Your task to perform on an android device: turn pop-ups on in chrome Image 0: 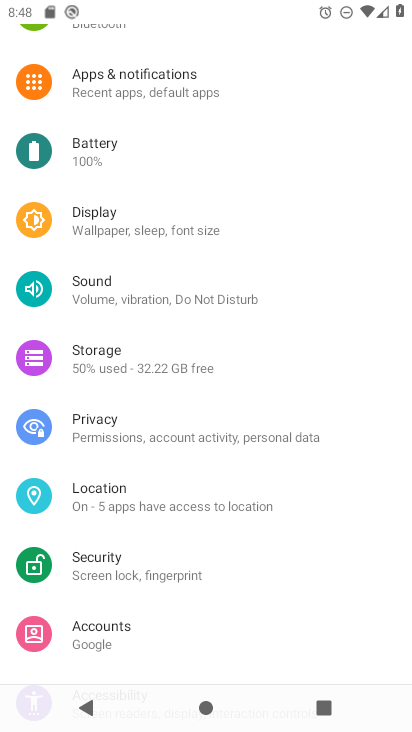
Step 0: press home button
Your task to perform on an android device: turn pop-ups on in chrome Image 1: 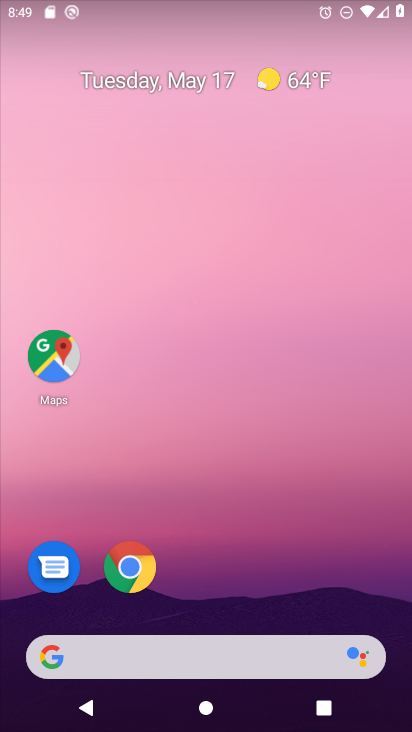
Step 1: click (129, 551)
Your task to perform on an android device: turn pop-ups on in chrome Image 2: 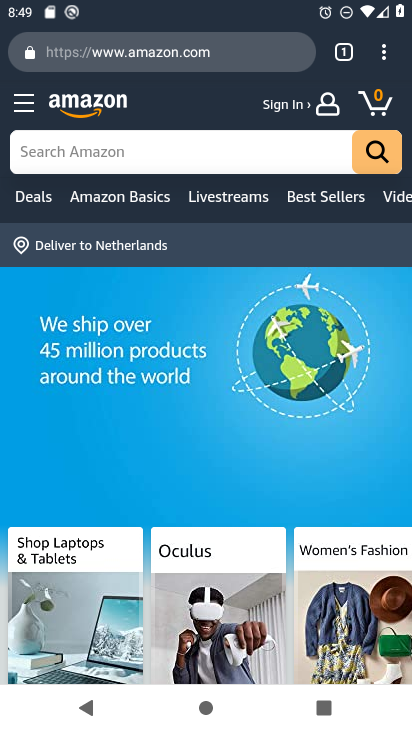
Step 2: press back button
Your task to perform on an android device: turn pop-ups on in chrome Image 3: 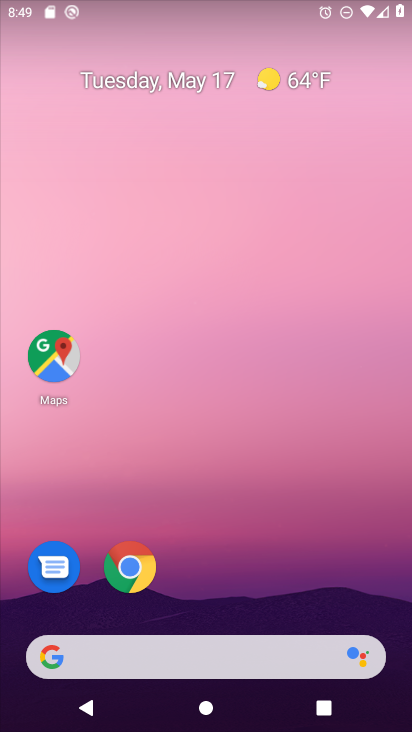
Step 3: click (140, 555)
Your task to perform on an android device: turn pop-ups on in chrome Image 4: 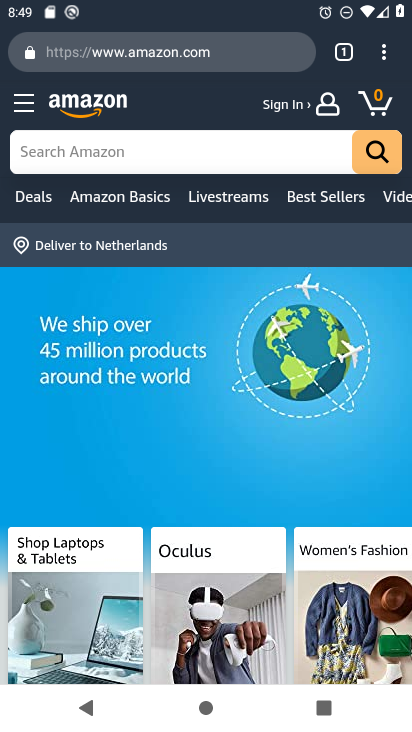
Step 4: press back button
Your task to perform on an android device: turn pop-ups on in chrome Image 5: 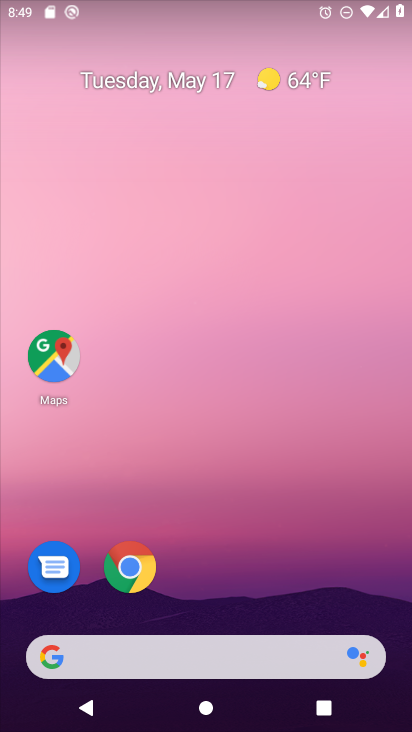
Step 5: click (137, 550)
Your task to perform on an android device: turn pop-ups on in chrome Image 6: 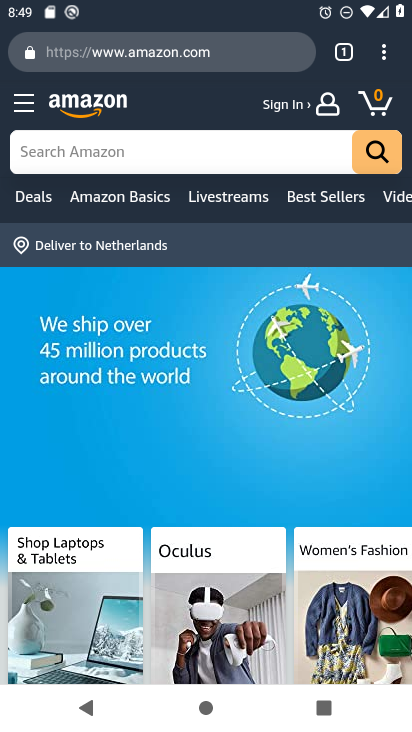
Step 6: press back button
Your task to perform on an android device: turn pop-ups on in chrome Image 7: 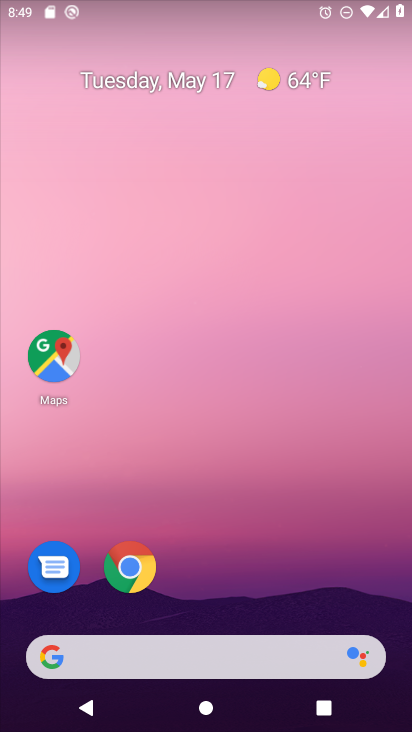
Step 7: click (133, 580)
Your task to perform on an android device: turn pop-ups on in chrome Image 8: 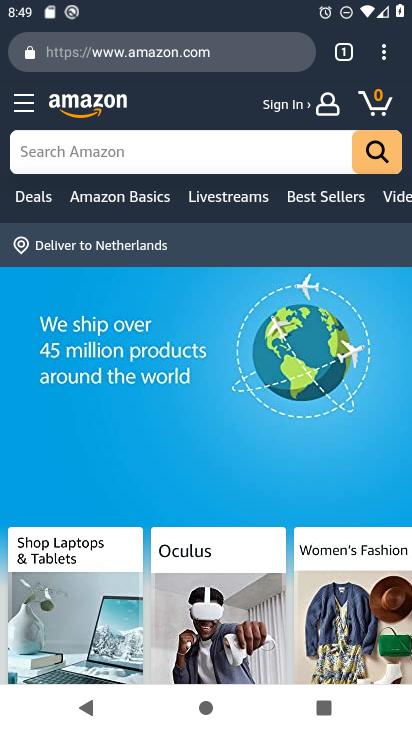
Step 8: click (341, 54)
Your task to perform on an android device: turn pop-ups on in chrome Image 9: 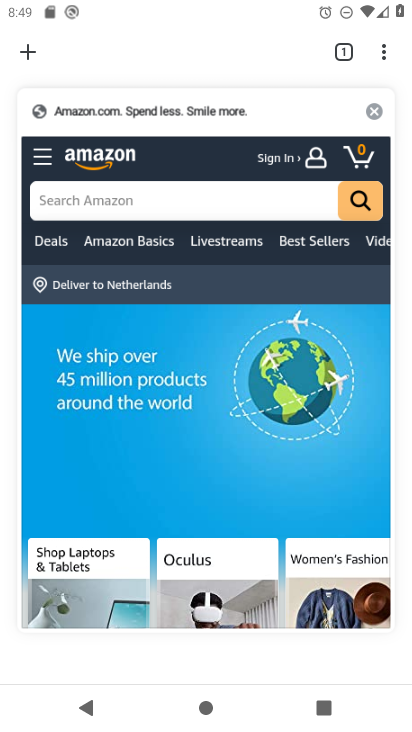
Step 9: click (377, 110)
Your task to perform on an android device: turn pop-ups on in chrome Image 10: 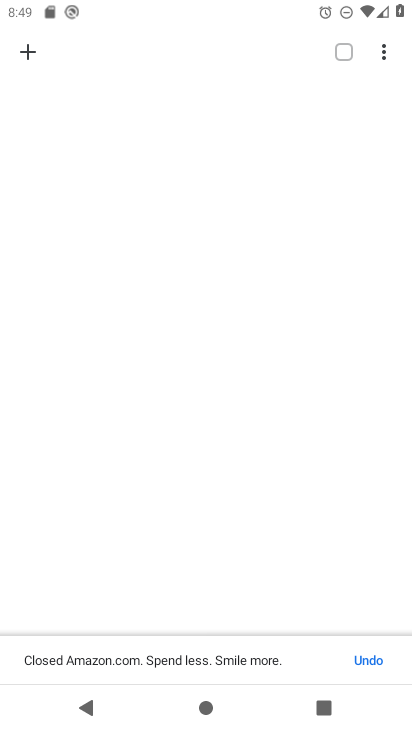
Step 10: click (23, 48)
Your task to perform on an android device: turn pop-ups on in chrome Image 11: 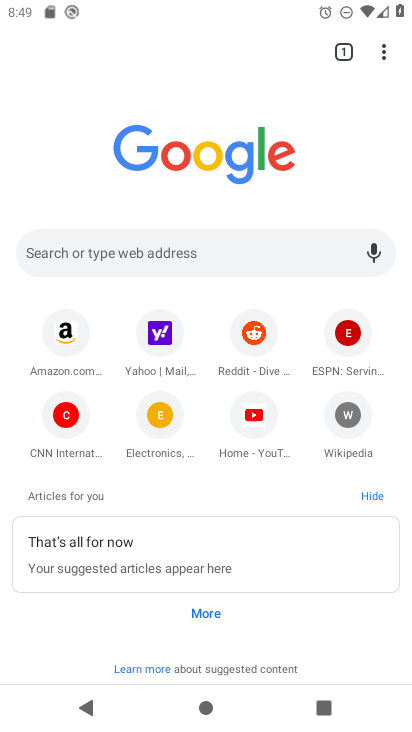
Step 11: task complete